Your task to perform on an android device: Open wifi settings Image 0: 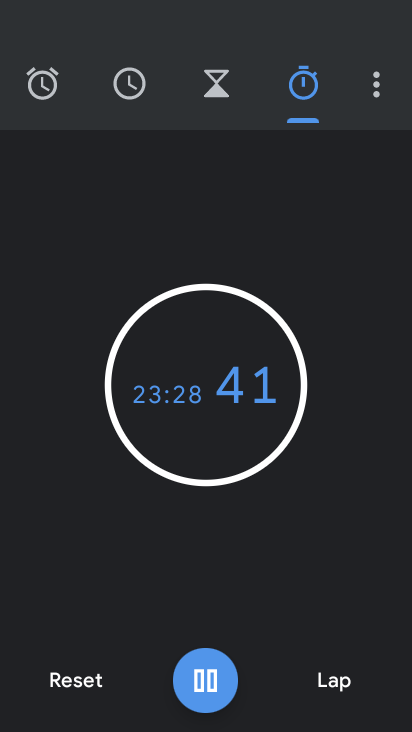
Step 0: press home button
Your task to perform on an android device: Open wifi settings Image 1: 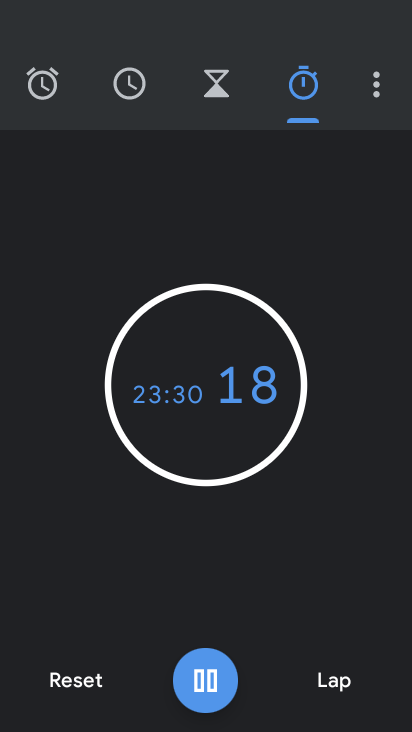
Step 1: press home button
Your task to perform on an android device: Open wifi settings Image 2: 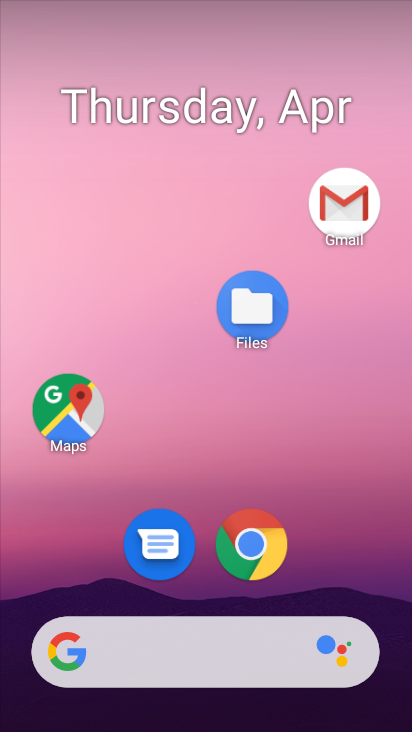
Step 2: press home button
Your task to perform on an android device: Open wifi settings Image 3: 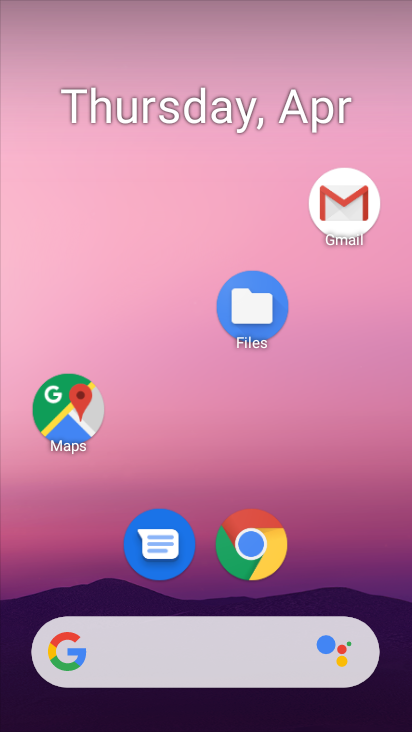
Step 3: press home button
Your task to perform on an android device: Open wifi settings Image 4: 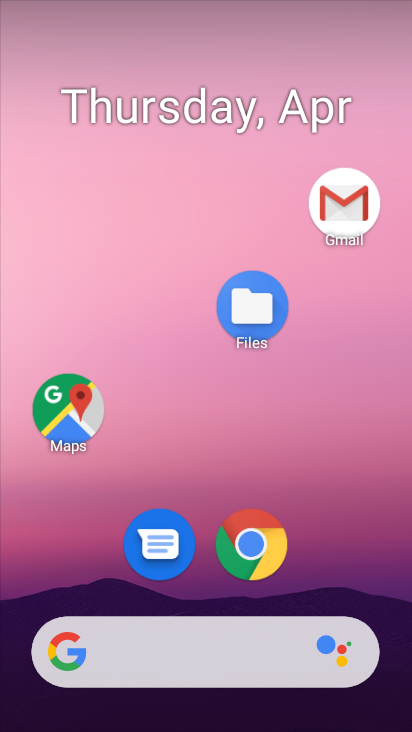
Step 4: drag from (318, 281) to (288, 117)
Your task to perform on an android device: Open wifi settings Image 5: 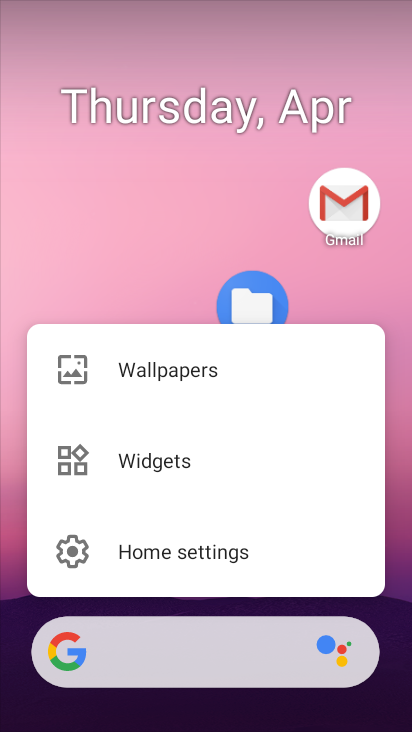
Step 5: click (160, 145)
Your task to perform on an android device: Open wifi settings Image 6: 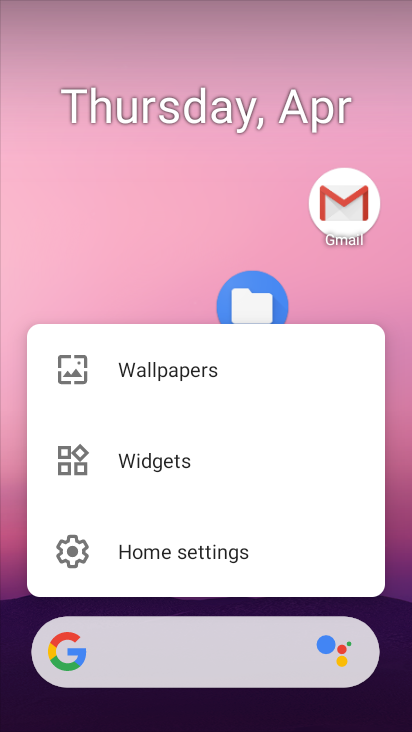
Step 6: click (356, 294)
Your task to perform on an android device: Open wifi settings Image 7: 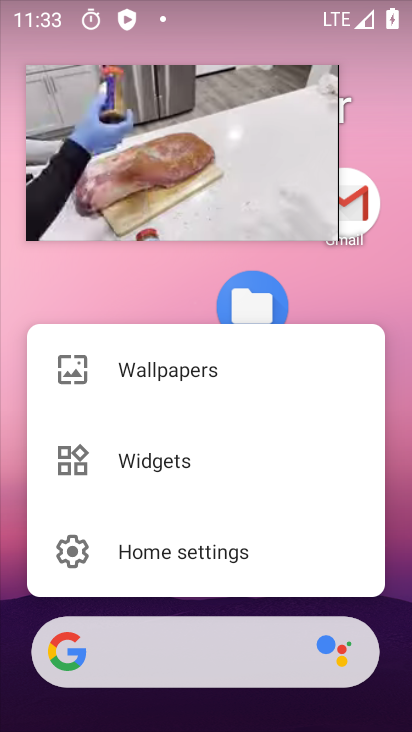
Step 7: click (137, 298)
Your task to perform on an android device: Open wifi settings Image 8: 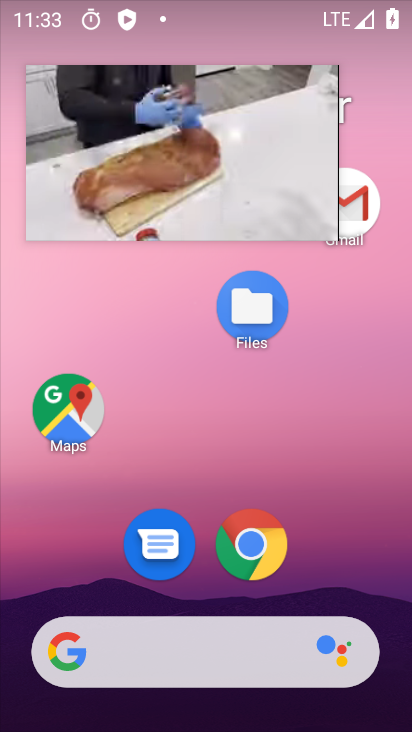
Step 8: drag from (206, 9) to (194, 531)
Your task to perform on an android device: Open wifi settings Image 9: 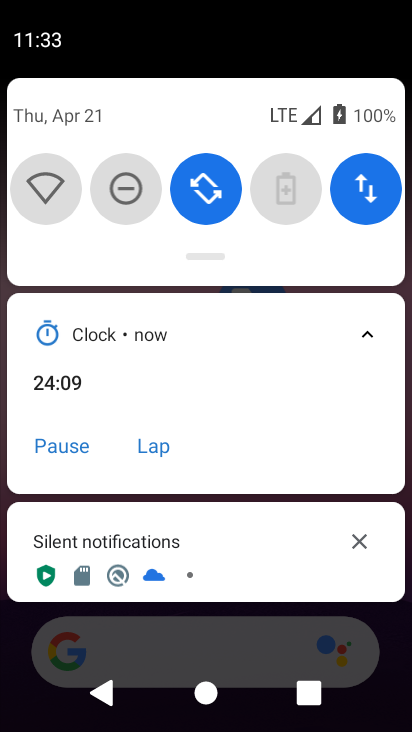
Step 9: click (59, 198)
Your task to perform on an android device: Open wifi settings Image 10: 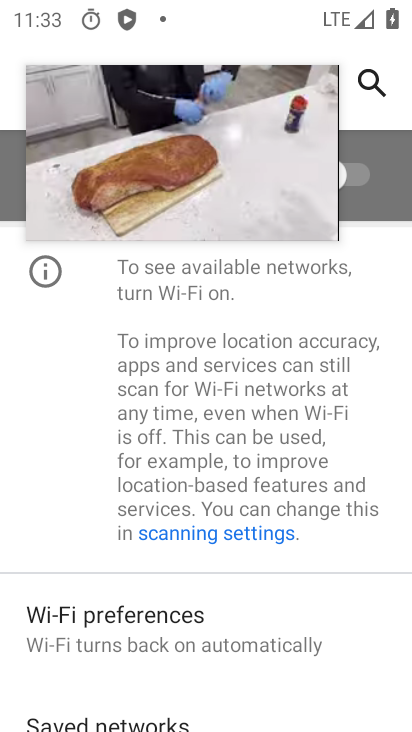
Step 10: click (301, 95)
Your task to perform on an android device: Open wifi settings Image 11: 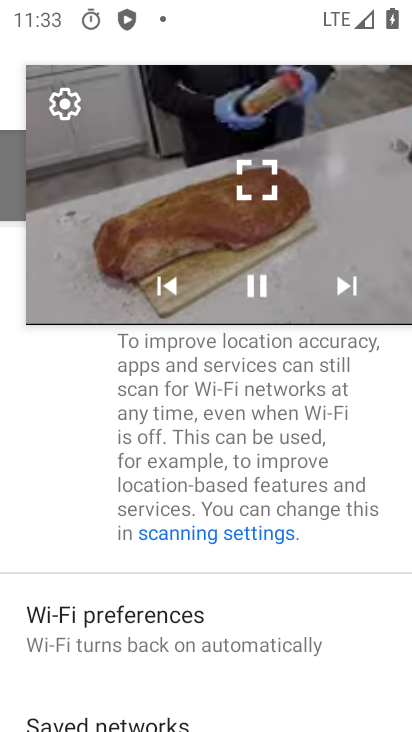
Step 11: task complete